Your task to perform on an android device: Toggle the flashlight Image 0: 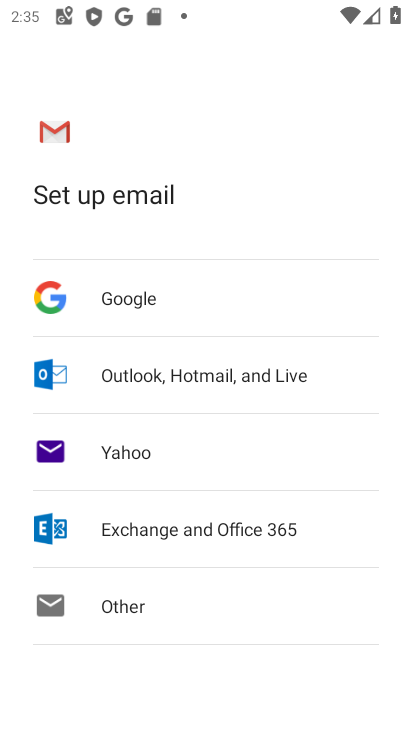
Step 0: press home button
Your task to perform on an android device: Toggle the flashlight Image 1: 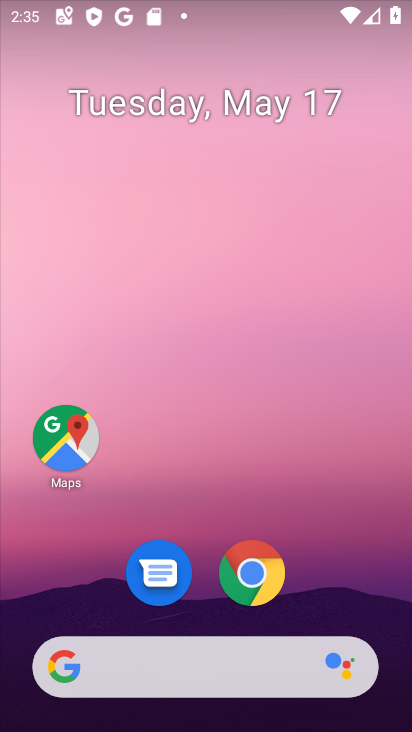
Step 1: drag from (377, 515) to (374, 118)
Your task to perform on an android device: Toggle the flashlight Image 2: 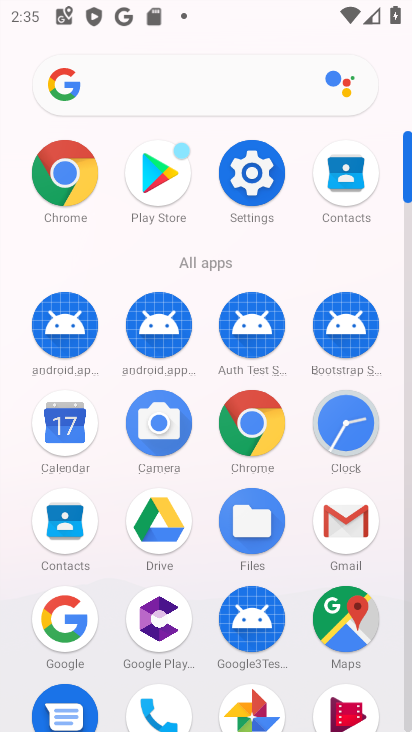
Step 2: click (240, 181)
Your task to perform on an android device: Toggle the flashlight Image 3: 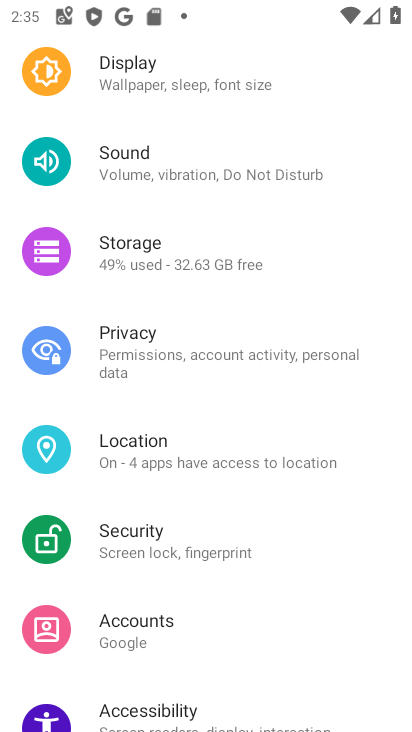
Step 3: drag from (272, 263) to (288, 622)
Your task to perform on an android device: Toggle the flashlight Image 4: 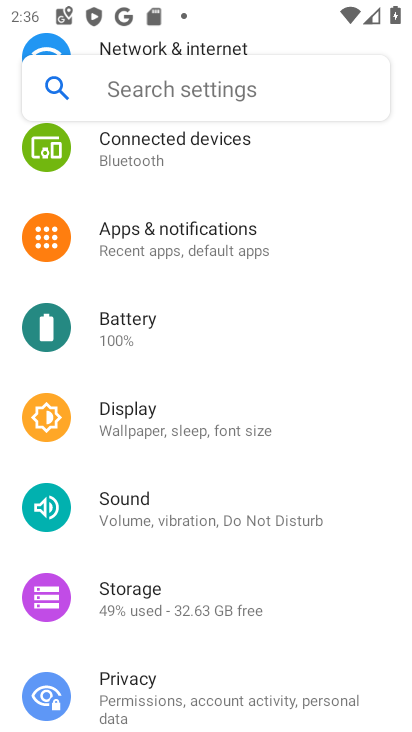
Step 4: click (246, 91)
Your task to perform on an android device: Toggle the flashlight Image 5: 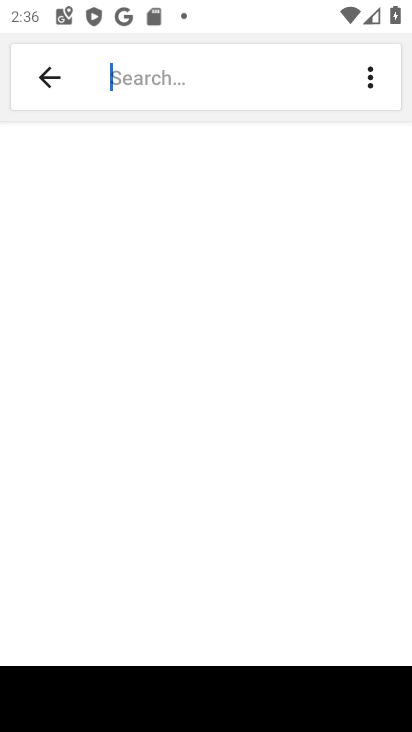
Step 5: type "flashlight"
Your task to perform on an android device: Toggle the flashlight Image 6: 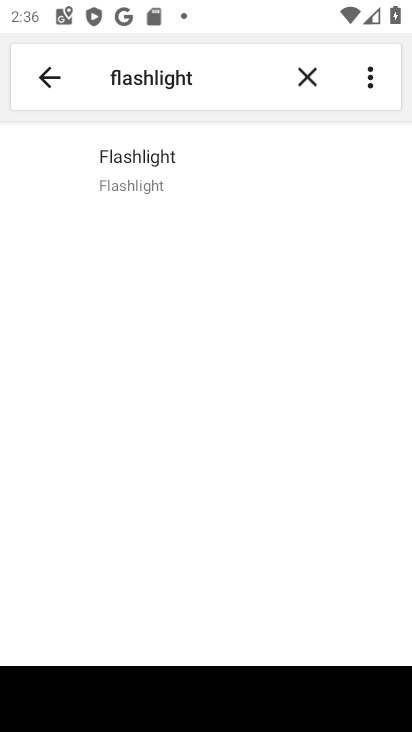
Step 6: click (192, 159)
Your task to perform on an android device: Toggle the flashlight Image 7: 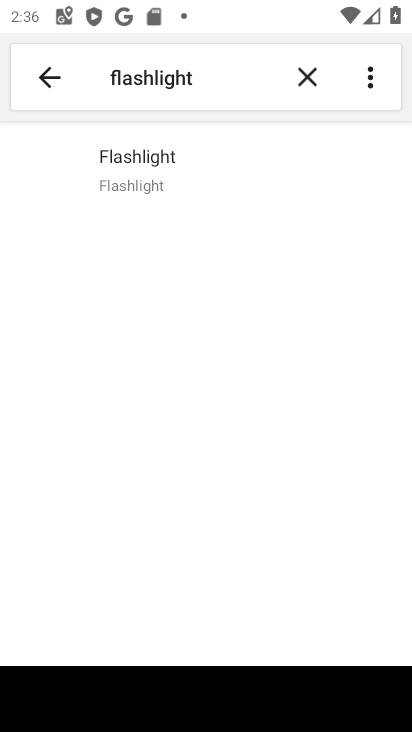
Step 7: task complete